Your task to perform on an android device: Open wifi settings Image 0: 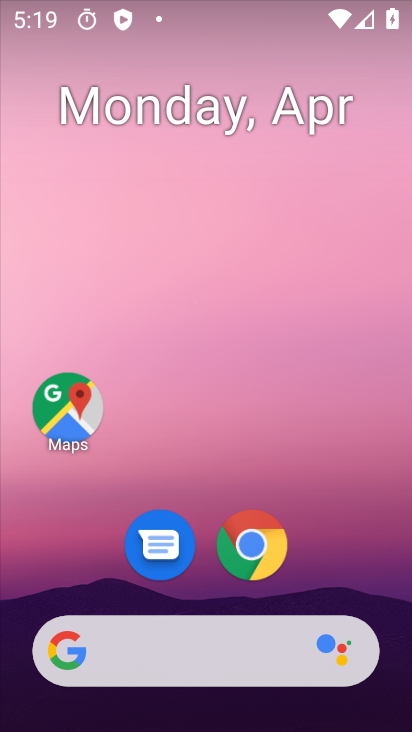
Step 0: drag from (360, 559) to (361, 426)
Your task to perform on an android device: Open wifi settings Image 1: 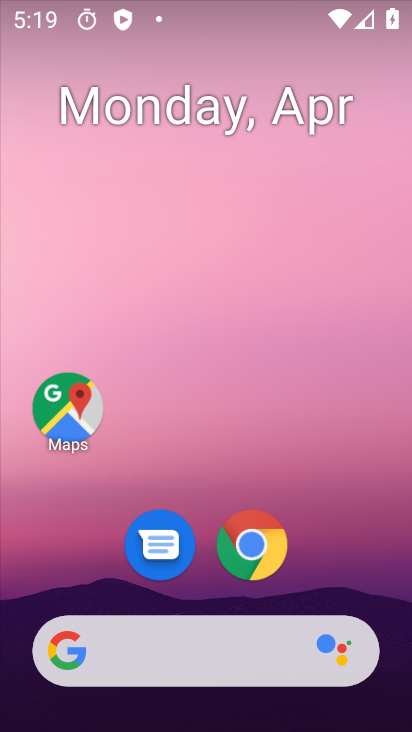
Step 1: task complete